Your task to perform on an android device: Open Yahoo.com Image 0: 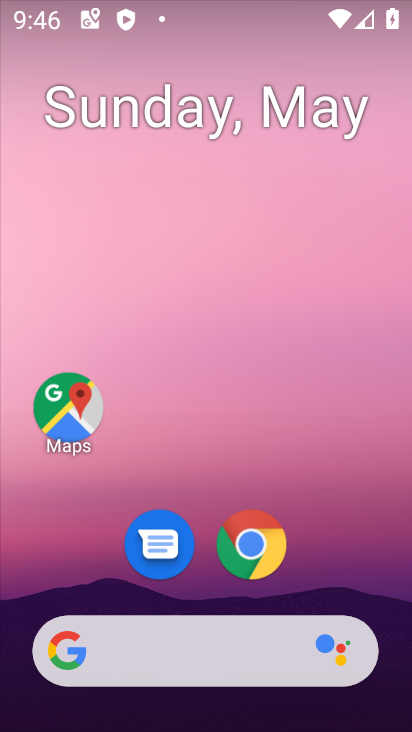
Step 0: click (252, 561)
Your task to perform on an android device: Open Yahoo.com Image 1: 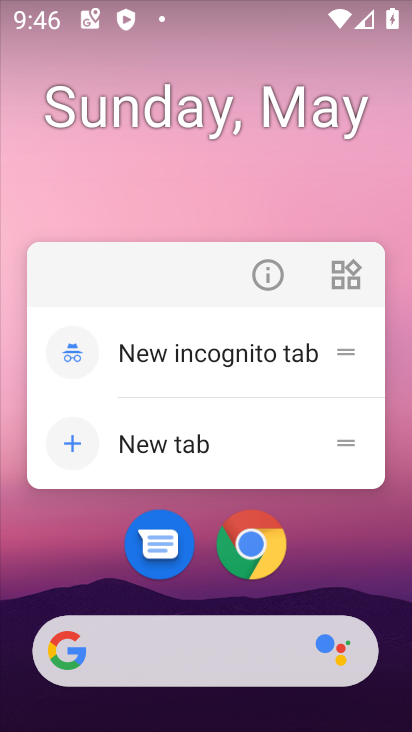
Step 1: click (252, 560)
Your task to perform on an android device: Open Yahoo.com Image 2: 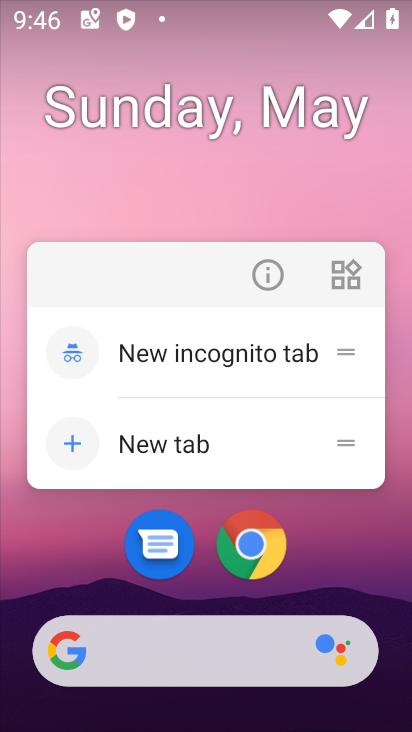
Step 2: click (250, 538)
Your task to perform on an android device: Open Yahoo.com Image 3: 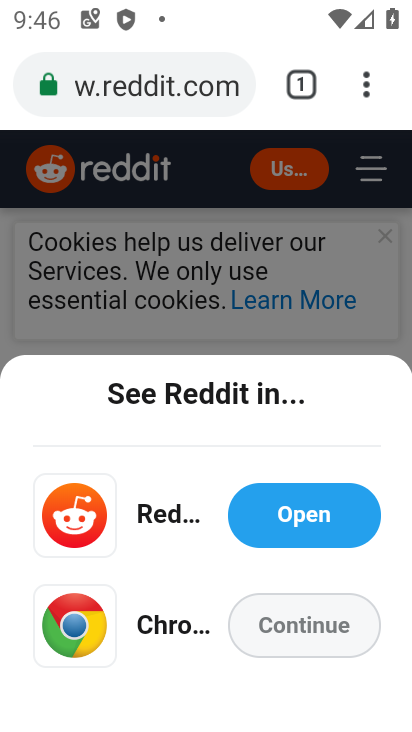
Step 3: click (205, 86)
Your task to perform on an android device: Open Yahoo.com Image 4: 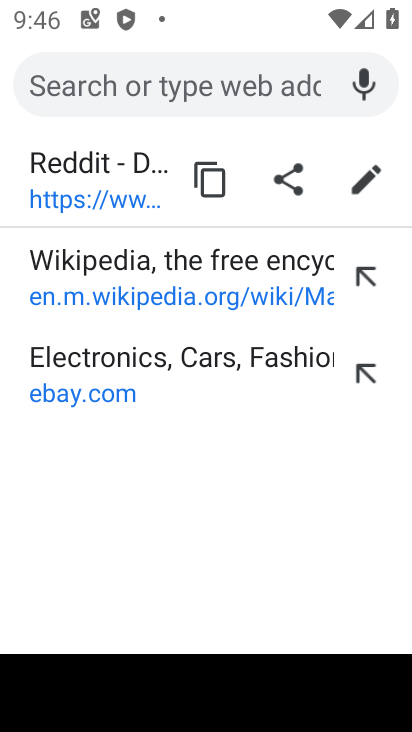
Step 4: type "yahoo"
Your task to perform on an android device: Open Yahoo.com Image 5: 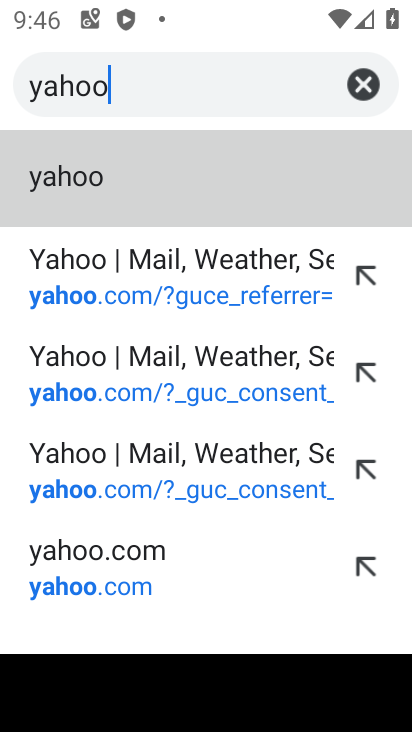
Step 5: click (143, 263)
Your task to perform on an android device: Open Yahoo.com Image 6: 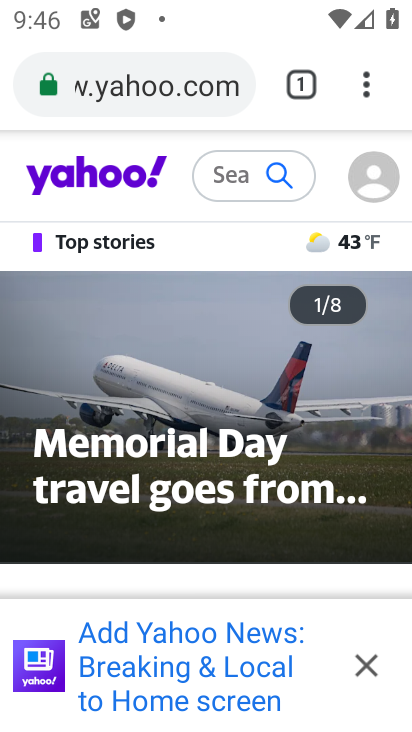
Step 6: task complete